Your task to perform on an android device: Show me popular games on the Play Store Image 0: 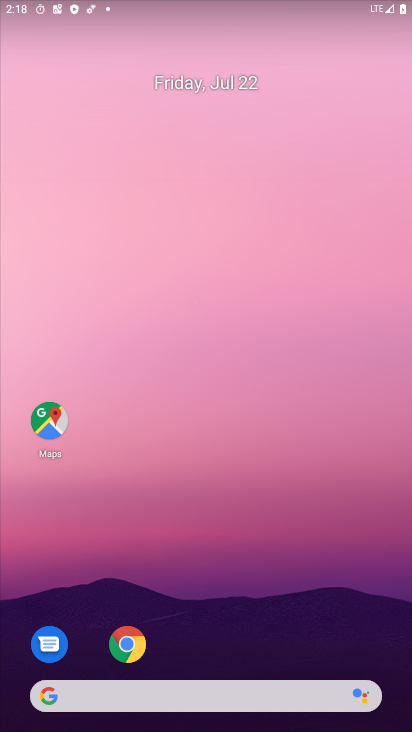
Step 0: drag from (238, 477) to (256, 127)
Your task to perform on an android device: Show me popular games on the Play Store Image 1: 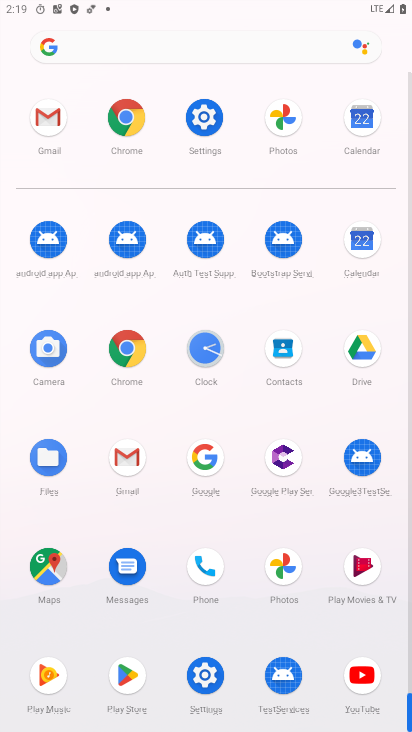
Step 1: click (135, 680)
Your task to perform on an android device: Show me popular games on the Play Store Image 2: 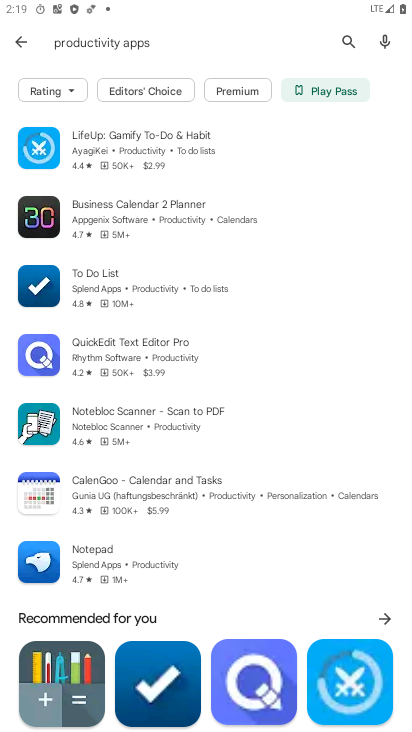
Step 2: click (16, 46)
Your task to perform on an android device: Show me popular games on the Play Store Image 3: 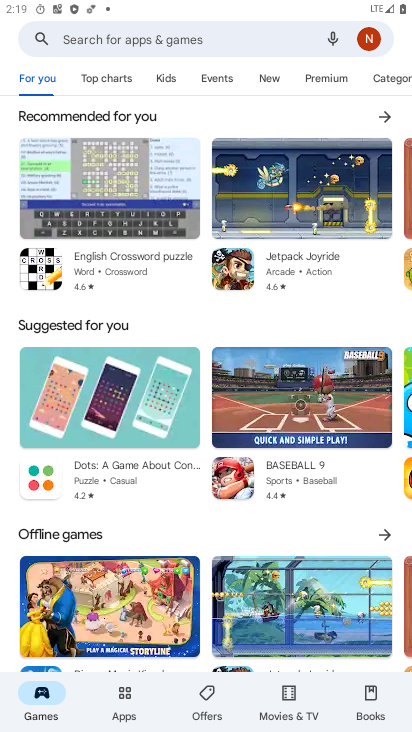
Step 3: task complete